Your task to perform on an android device: Open settings Image 0: 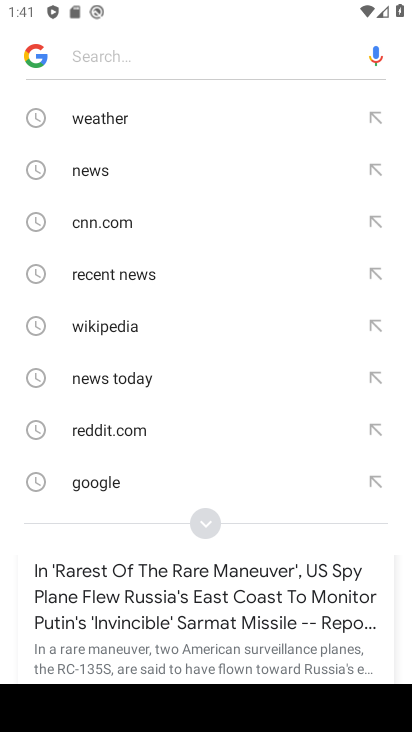
Step 0: press back button
Your task to perform on an android device: Open settings Image 1: 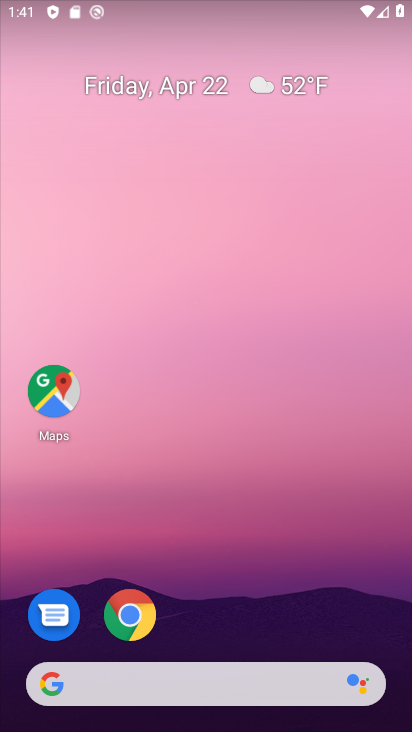
Step 1: drag from (197, 575) to (295, 85)
Your task to perform on an android device: Open settings Image 2: 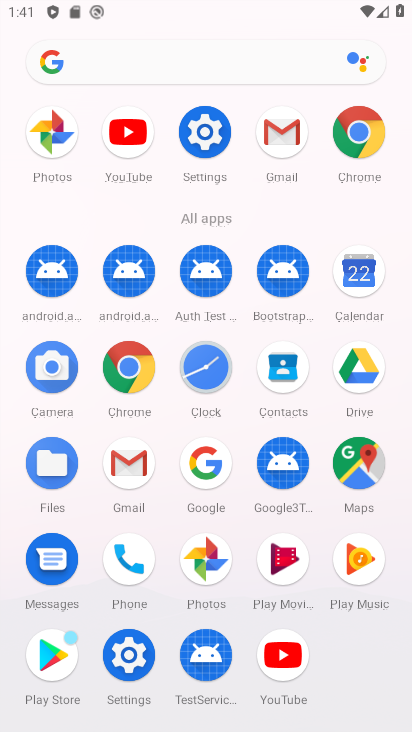
Step 2: click (124, 663)
Your task to perform on an android device: Open settings Image 3: 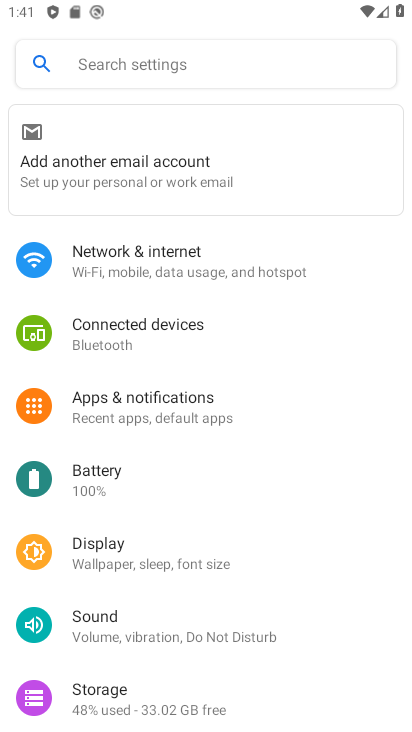
Step 3: task complete